Your task to perform on an android device: empty trash in google photos Image 0: 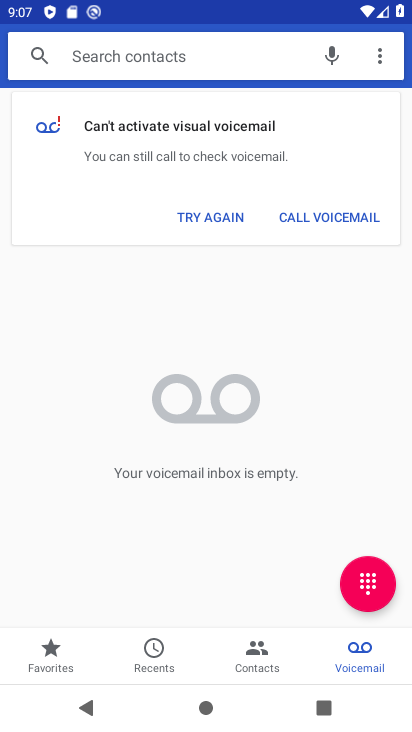
Step 0: press home button
Your task to perform on an android device: empty trash in google photos Image 1: 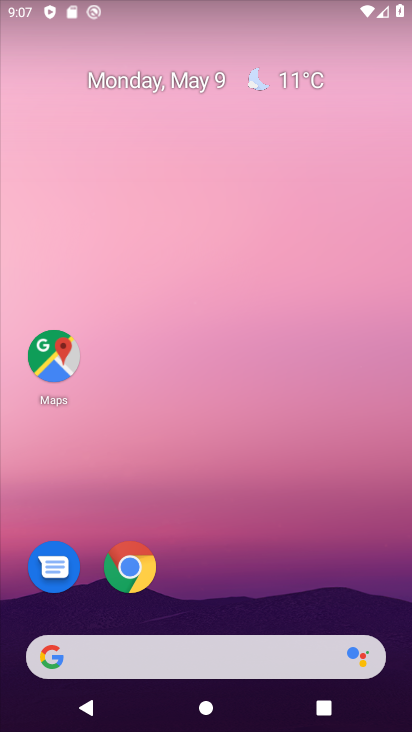
Step 1: drag from (243, 560) to (188, 84)
Your task to perform on an android device: empty trash in google photos Image 2: 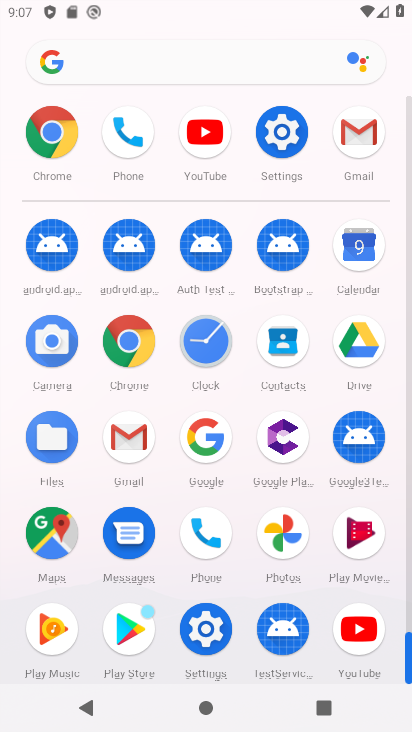
Step 2: click (285, 522)
Your task to perform on an android device: empty trash in google photos Image 3: 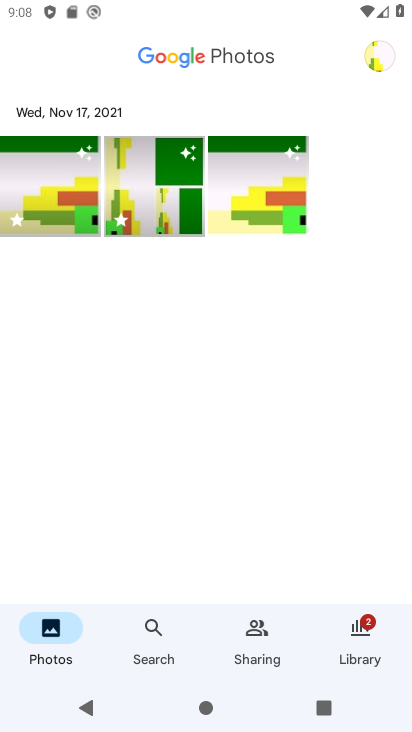
Step 3: click (143, 625)
Your task to perform on an android device: empty trash in google photos Image 4: 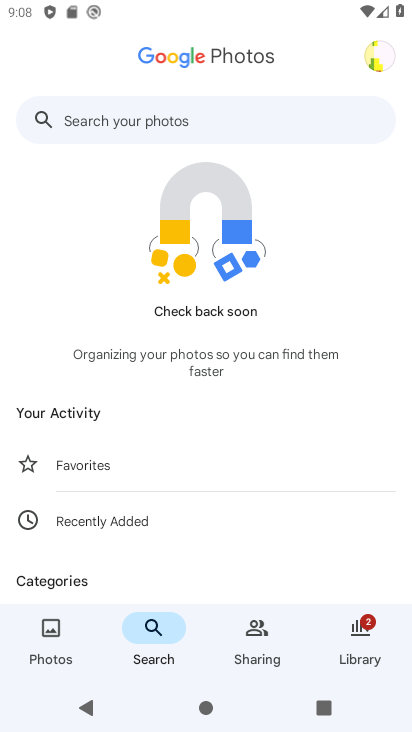
Step 4: click (276, 117)
Your task to perform on an android device: empty trash in google photos Image 5: 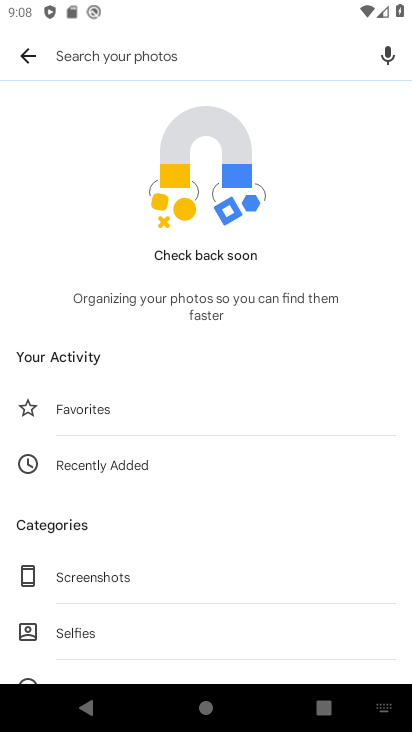
Step 5: type "trash"
Your task to perform on an android device: empty trash in google photos Image 6: 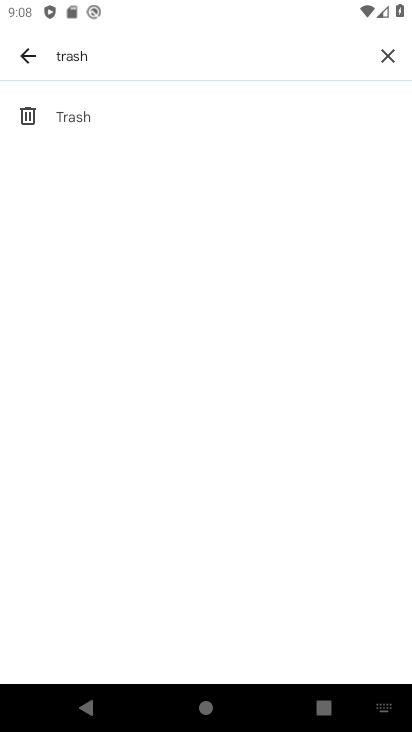
Step 6: click (63, 118)
Your task to perform on an android device: empty trash in google photos Image 7: 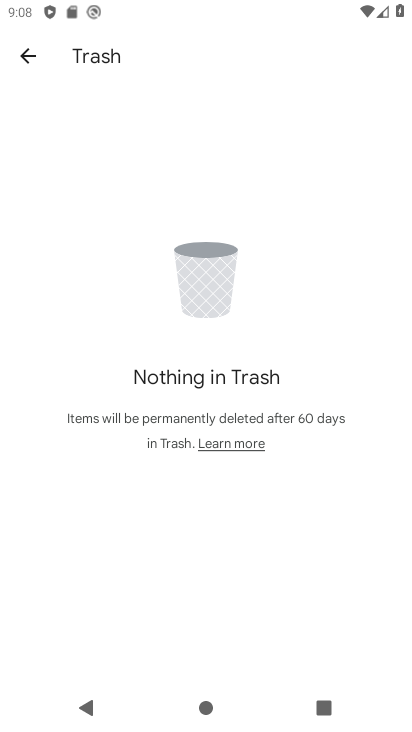
Step 7: task complete